Your task to perform on an android device: Do I have any events today? Image 0: 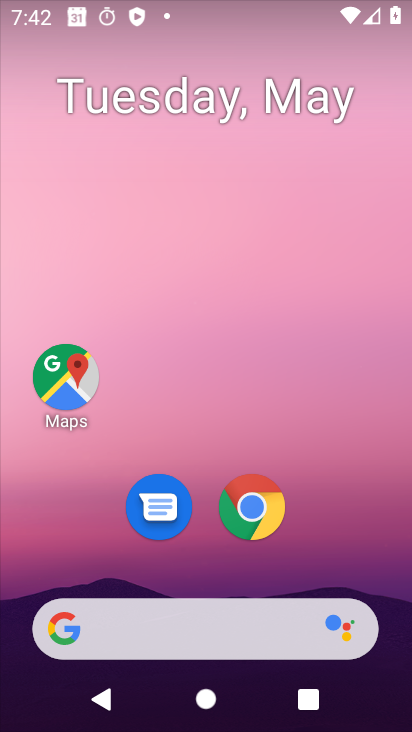
Step 0: drag from (263, 578) to (291, 58)
Your task to perform on an android device: Do I have any events today? Image 1: 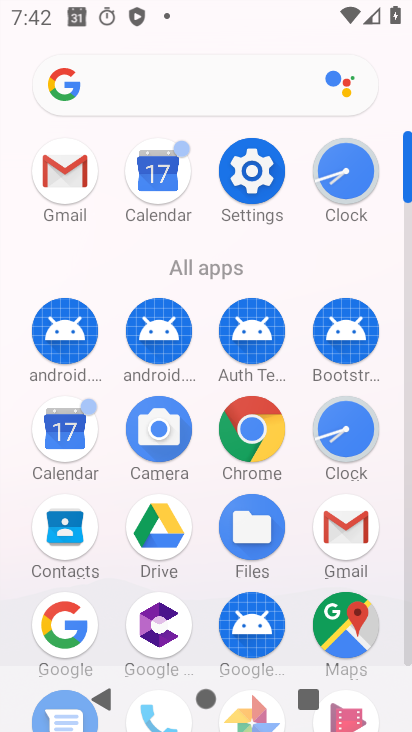
Step 1: click (155, 173)
Your task to perform on an android device: Do I have any events today? Image 2: 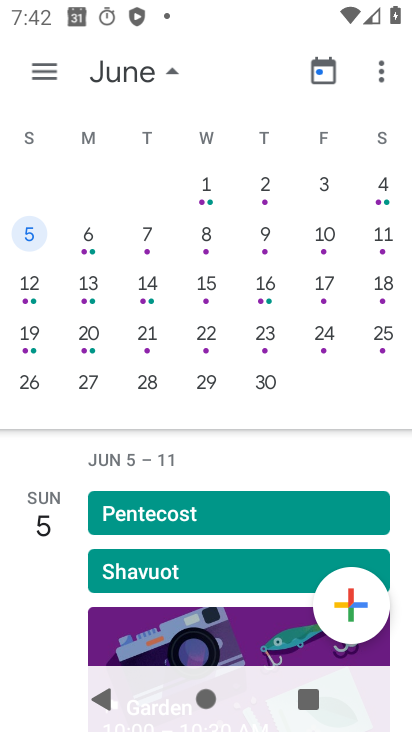
Step 2: drag from (46, 254) to (377, 290)
Your task to perform on an android device: Do I have any events today? Image 3: 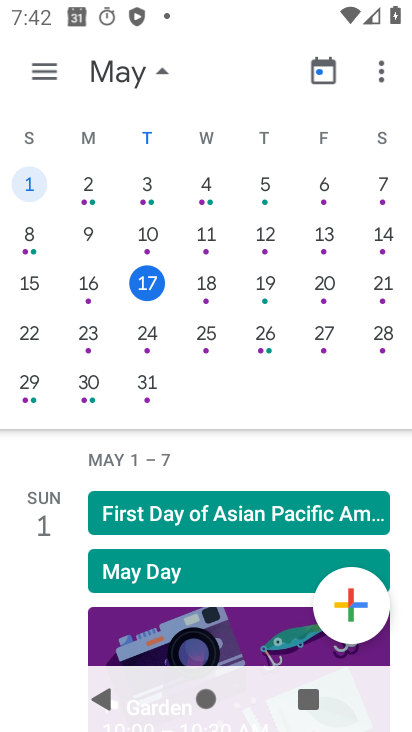
Step 3: click (156, 286)
Your task to perform on an android device: Do I have any events today? Image 4: 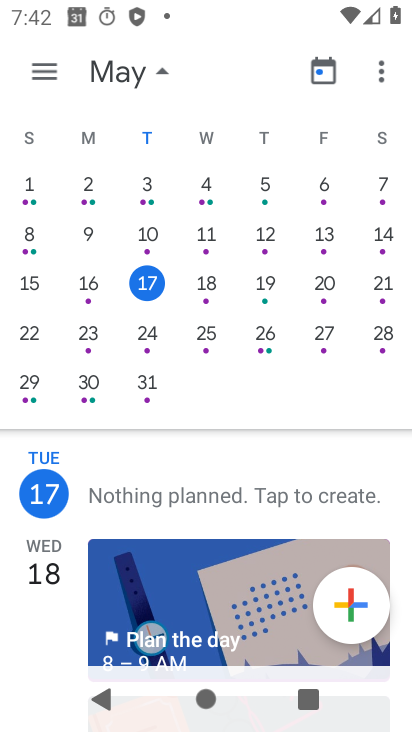
Step 4: task complete